Your task to perform on an android device: turn on the 24-hour format for clock Image 0: 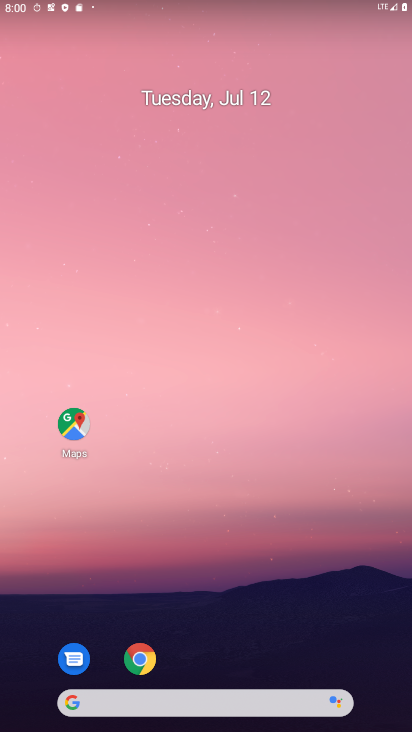
Step 0: drag from (371, 691) to (158, 23)
Your task to perform on an android device: turn on the 24-hour format for clock Image 1: 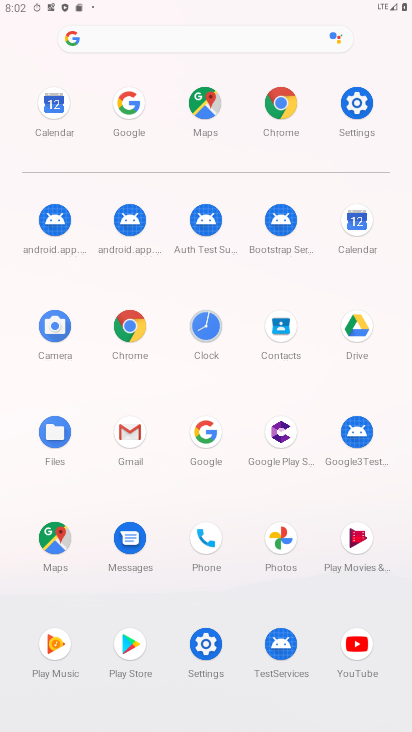
Step 1: click (195, 320)
Your task to perform on an android device: turn on the 24-hour format for clock Image 2: 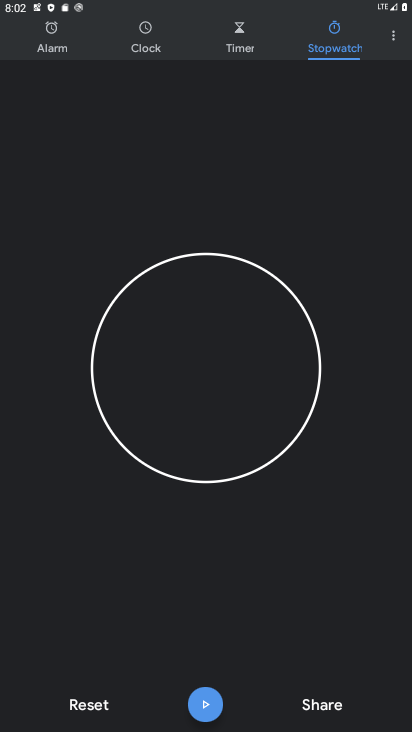
Step 2: click (389, 32)
Your task to perform on an android device: turn on the 24-hour format for clock Image 3: 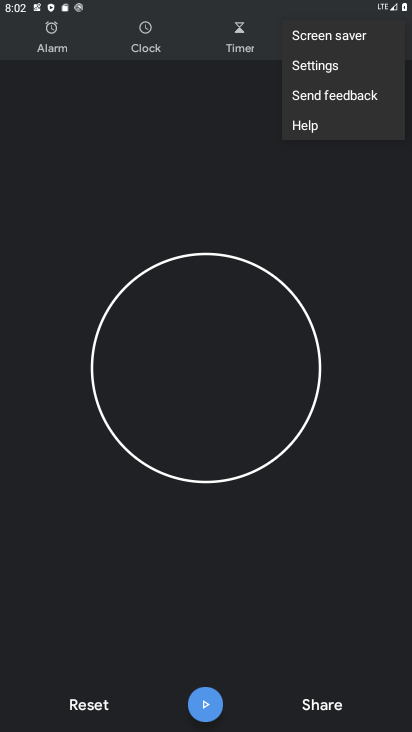
Step 3: click (326, 63)
Your task to perform on an android device: turn on the 24-hour format for clock Image 4: 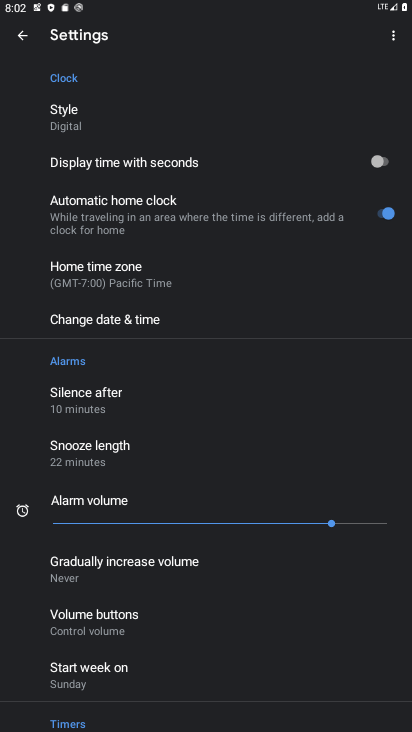
Step 4: click (122, 308)
Your task to perform on an android device: turn on the 24-hour format for clock Image 5: 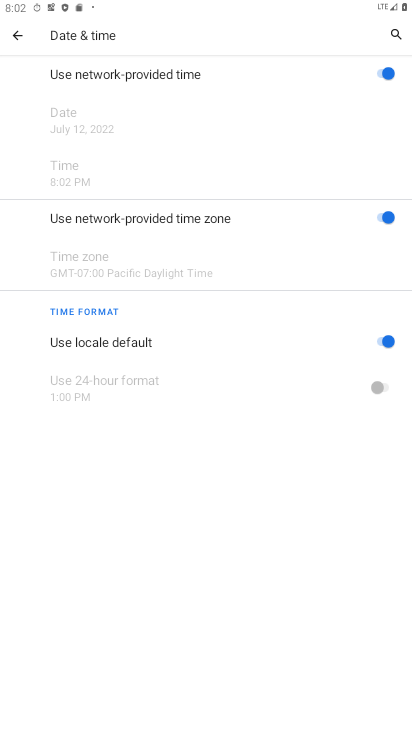
Step 5: task complete